Your task to perform on an android device: Open settings on Google Maps Image 0: 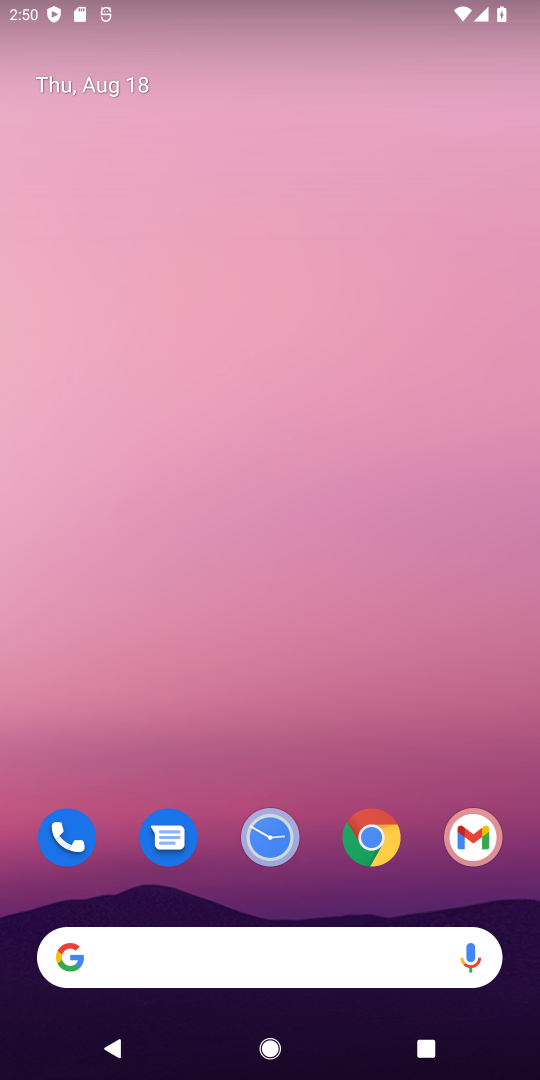
Step 0: drag from (321, 893) to (351, 92)
Your task to perform on an android device: Open settings on Google Maps Image 1: 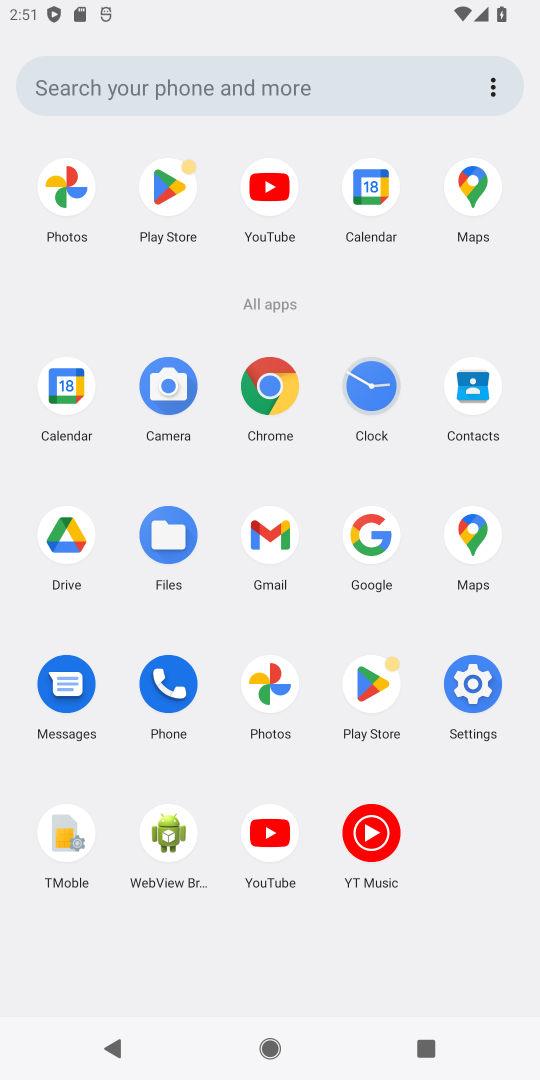
Step 1: click (463, 537)
Your task to perform on an android device: Open settings on Google Maps Image 2: 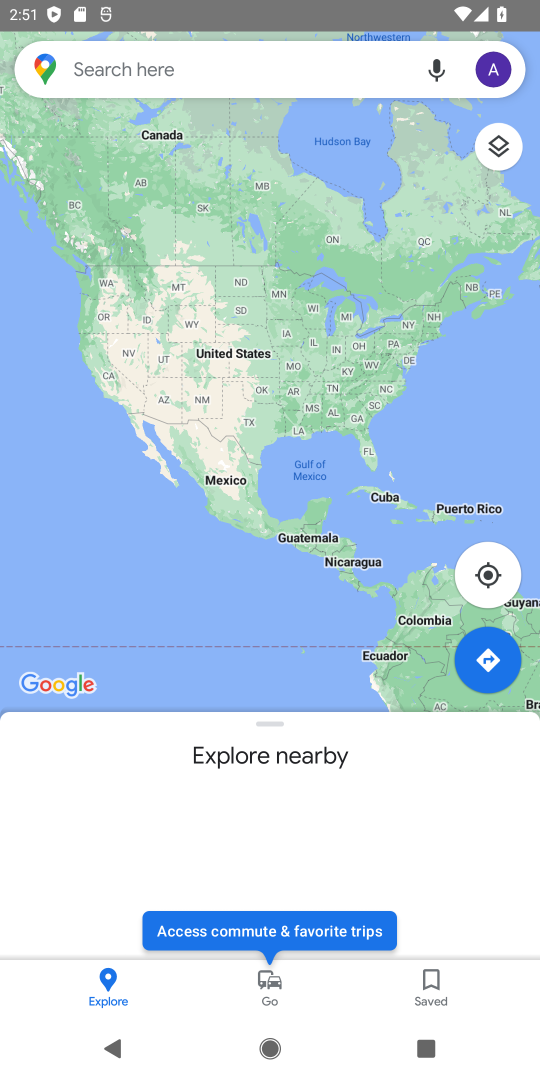
Step 2: click (499, 69)
Your task to perform on an android device: Open settings on Google Maps Image 3: 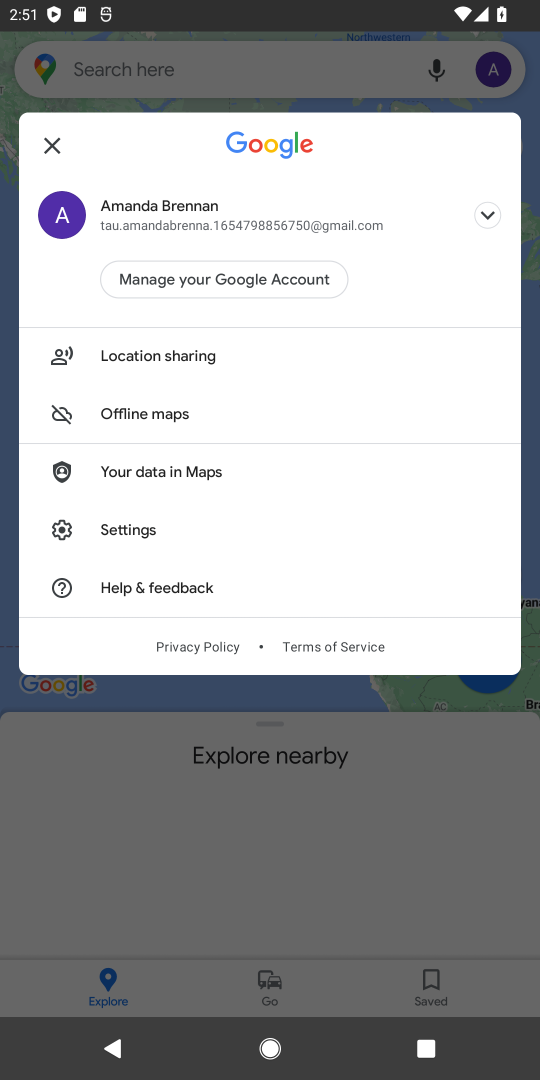
Step 3: click (111, 527)
Your task to perform on an android device: Open settings on Google Maps Image 4: 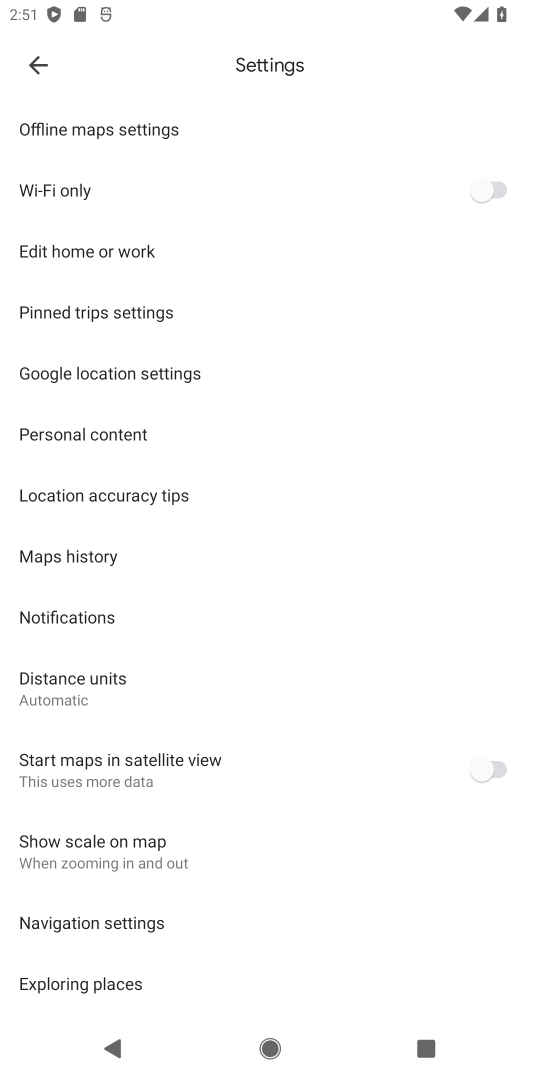
Step 4: task complete